Your task to perform on an android device: stop showing notifications on the lock screen Image 0: 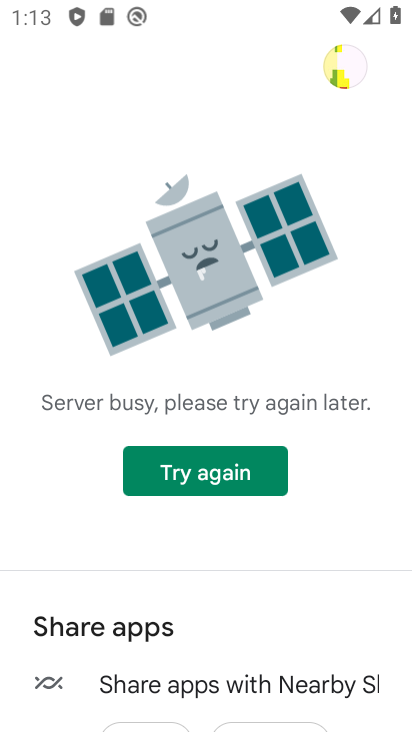
Step 0: press back button
Your task to perform on an android device: stop showing notifications on the lock screen Image 1: 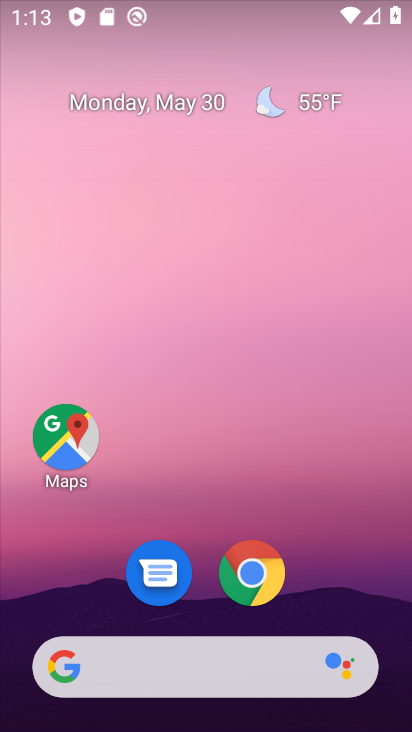
Step 1: drag from (337, 558) to (222, 88)
Your task to perform on an android device: stop showing notifications on the lock screen Image 2: 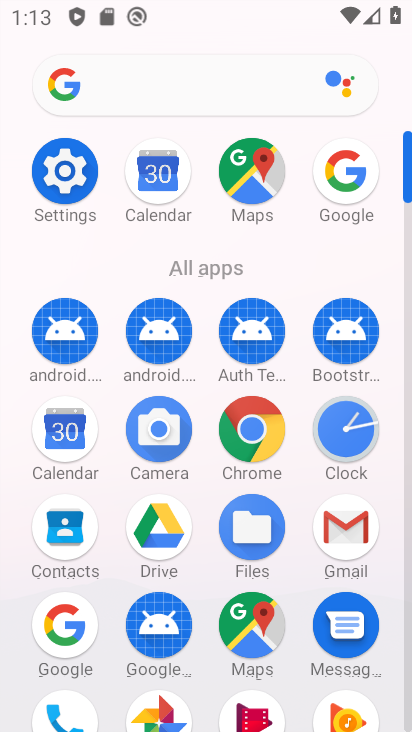
Step 2: click (65, 170)
Your task to perform on an android device: stop showing notifications on the lock screen Image 3: 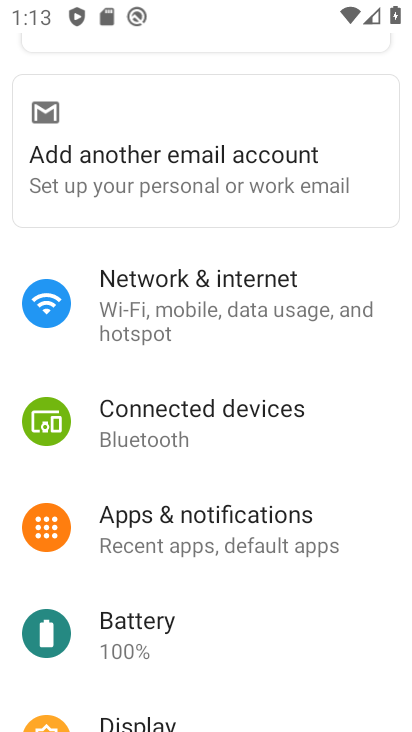
Step 3: click (220, 520)
Your task to perform on an android device: stop showing notifications on the lock screen Image 4: 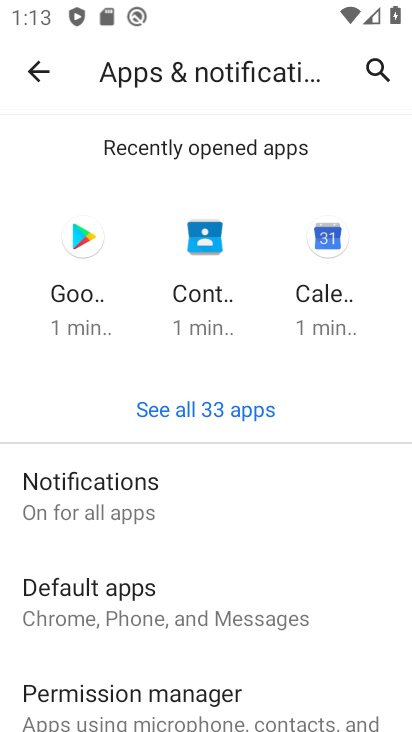
Step 4: click (146, 482)
Your task to perform on an android device: stop showing notifications on the lock screen Image 5: 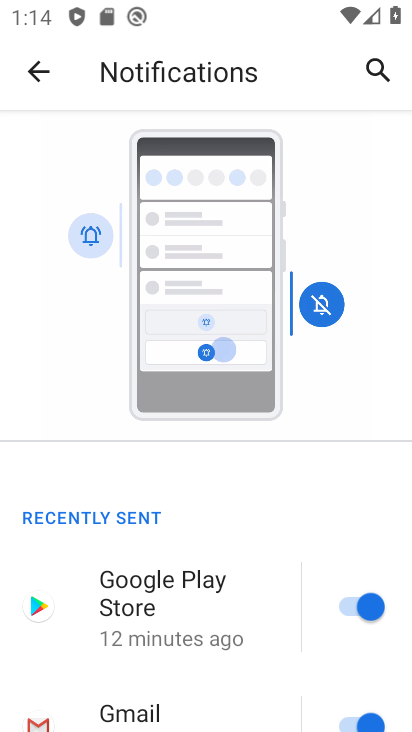
Step 5: drag from (181, 677) to (218, 563)
Your task to perform on an android device: stop showing notifications on the lock screen Image 6: 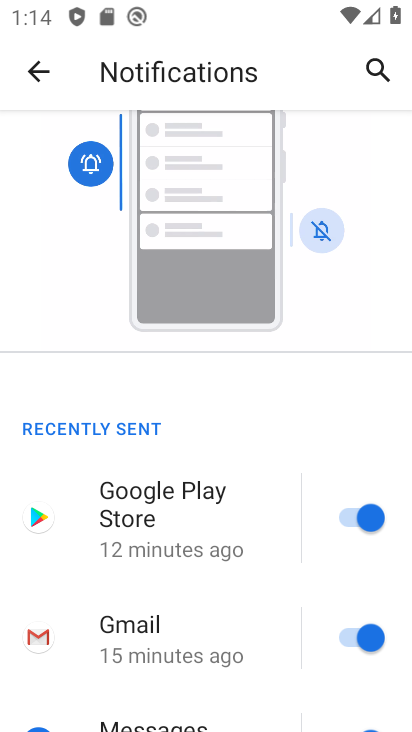
Step 6: drag from (146, 691) to (240, 555)
Your task to perform on an android device: stop showing notifications on the lock screen Image 7: 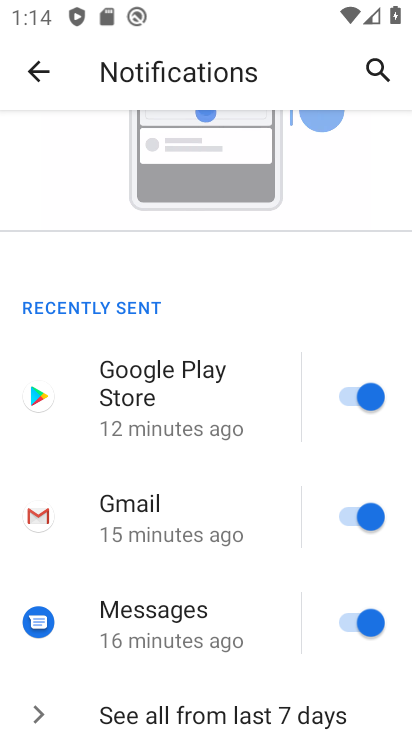
Step 7: drag from (134, 665) to (231, 509)
Your task to perform on an android device: stop showing notifications on the lock screen Image 8: 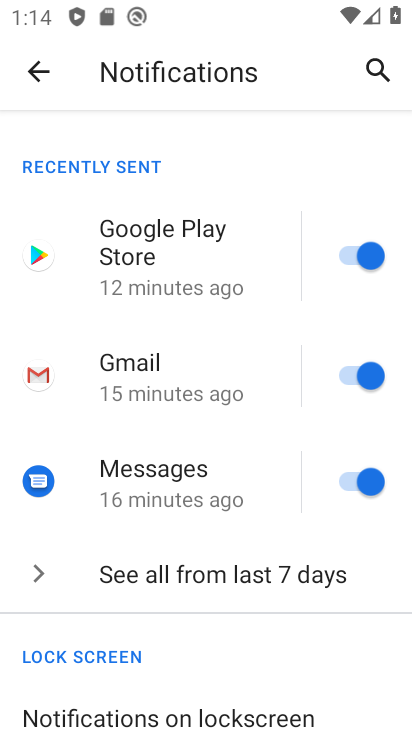
Step 8: drag from (165, 671) to (261, 503)
Your task to perform on an android device: stop showing notifications on the lock screen Image 9: 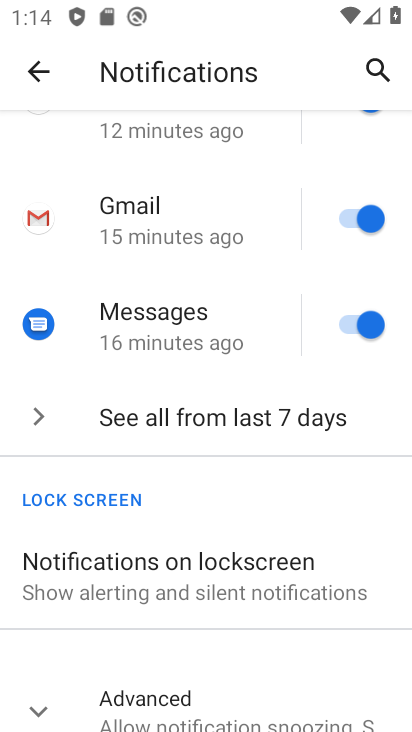
Step 9: click (234, 580)
Your task to perform on an android device: stop showing notifications on the lock screen Image 10: 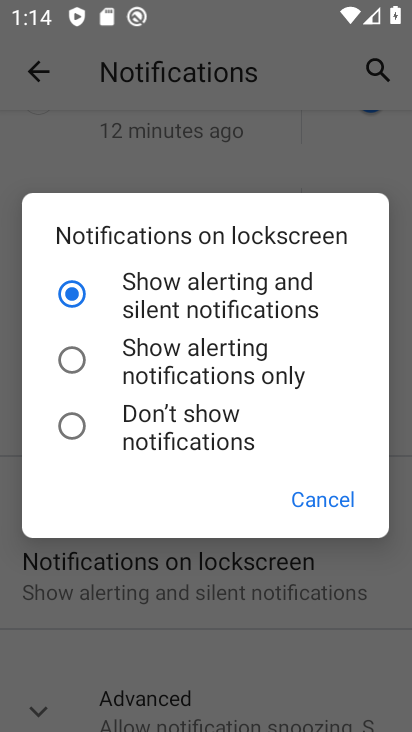
Step 10: click (75, 421)
Your task to perform on an android device: stop showing notifications on the lock screen Image 11: 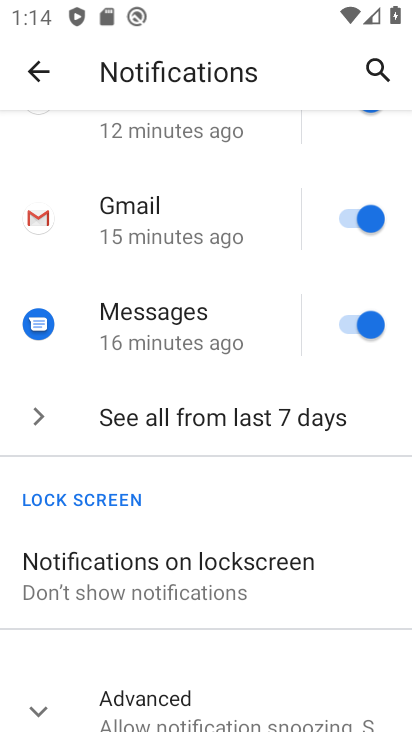
Step 11: task complete